Your task to perform on an android device: allow notifications from all sites in the chrome app Image 0: 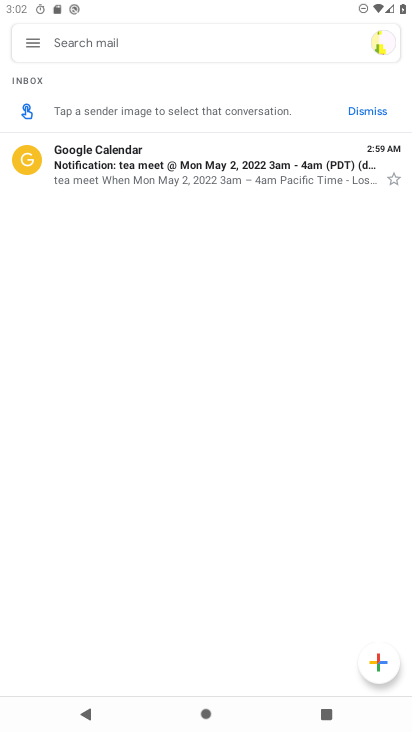
Step 0: press home button
Your task to perform on an android device: allow notifications from all sites in the chrome app Image 1: 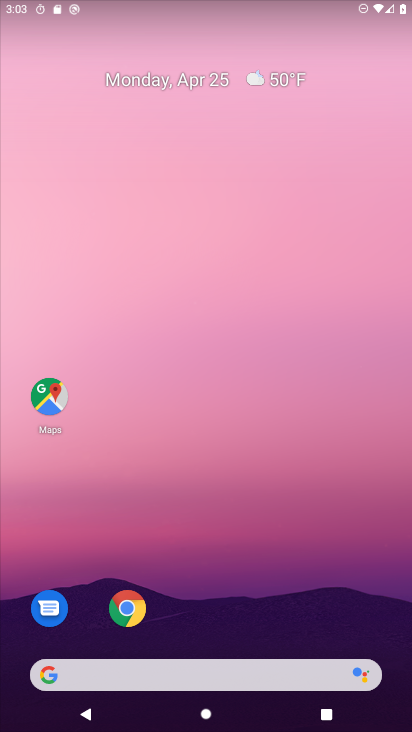
Step 1: click (133, 603)
Your task to perform on an android device: allow notifications from all sites in the chrome app Image 2: 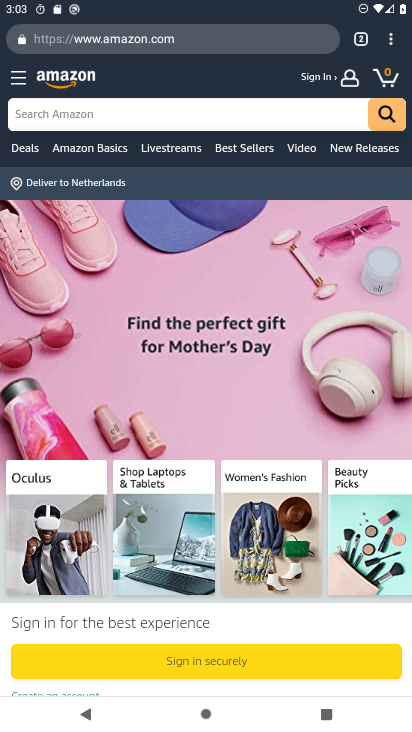
Step 2: click (392, 33)
Your task to perform on an android device: allow notifications from all sites in the chrome app Image 3: 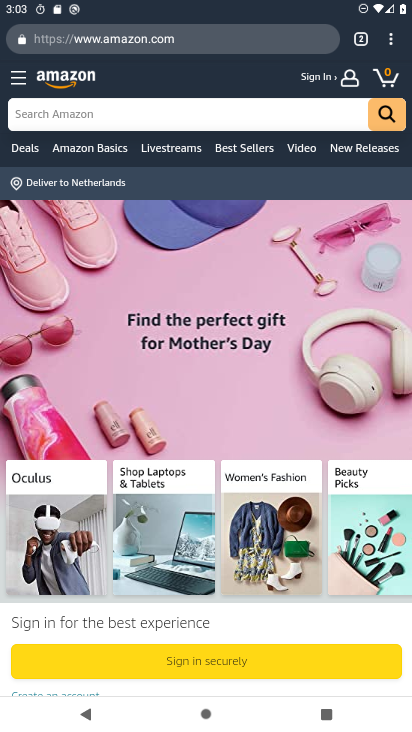
Step 3: drag from (394, 40) to (259, 516)
Your task to perform on an android device: allow notifications from all sites in the chrome app Image 4: 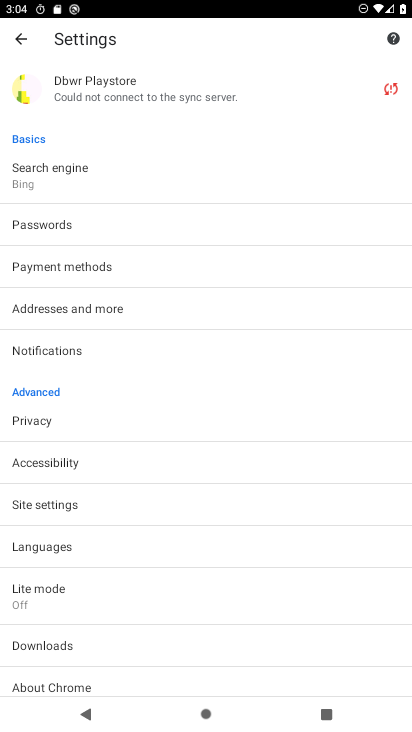
Step 4: click (104, 504)
Your task to perform on an android device: allow notifications from all sites in the chrome app Image 5: 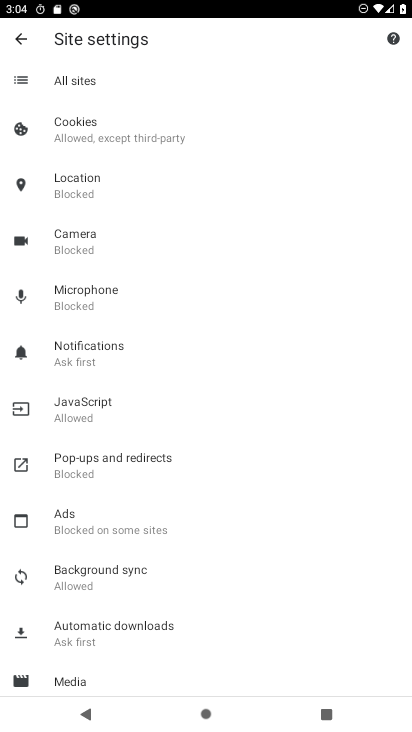
Step 5: click (137, 87)
Your task to perform on an android device: allow notifications from all sites in the chrome app Image 6: 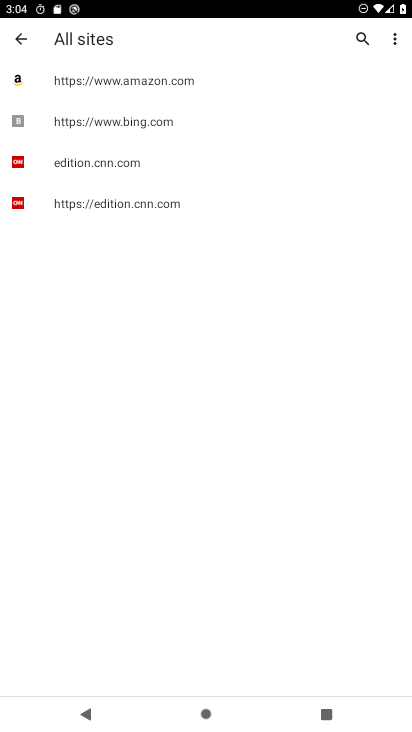
Step 6: click (157, 128)
Your task to perform on an android device: allow notifications from all sites in the chrome app Image 7: 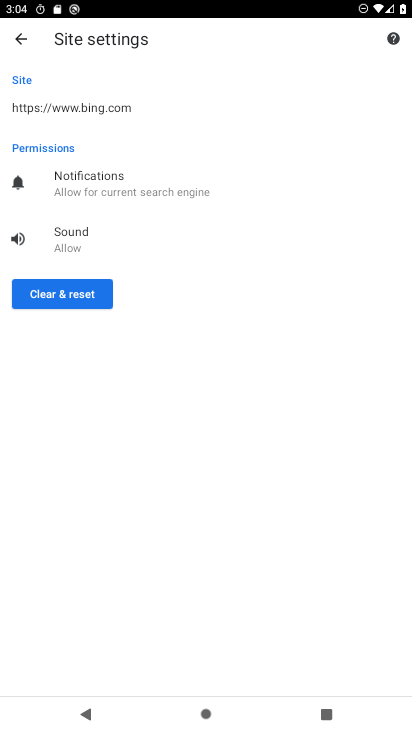
Step 7: click (138, 174)
Your task to perform on an android device: allow notifications from all sites in the chrome app Image 8: 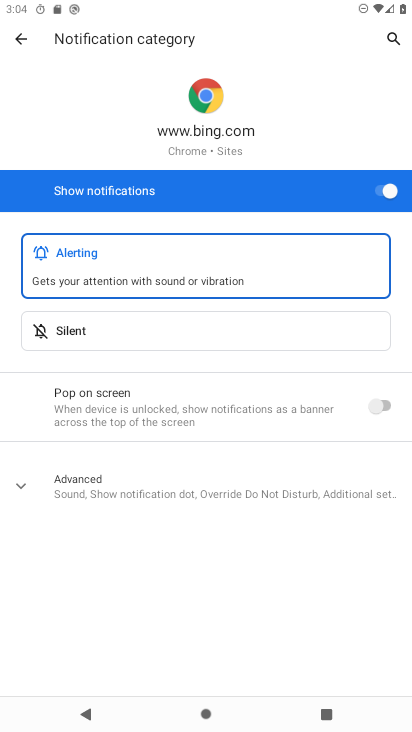
Step 8: click (372, 193)
Your task to perform on an android device: allow notifications from all sites in the chrome app Image 9: 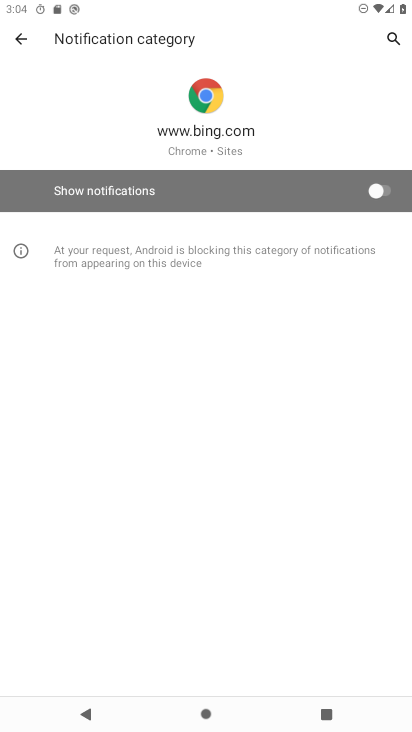
Step 9: click (384, 190)
Your task to perform on an android device: allow notifications from all sites in the chrome app Image 10: 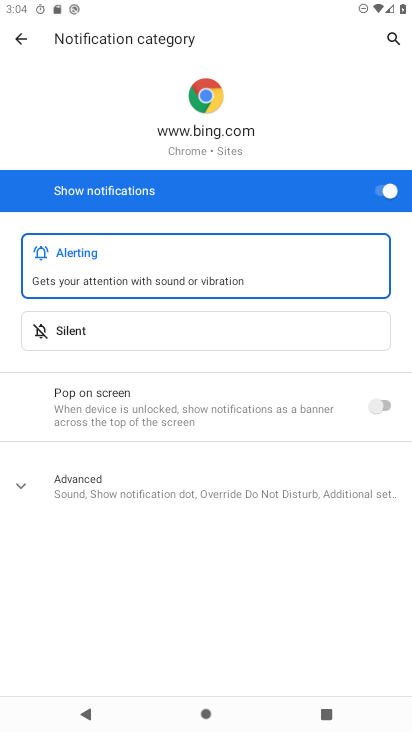
Step 10: task complete